Your task to perform on an android device: change the clock display to analog Image 0: 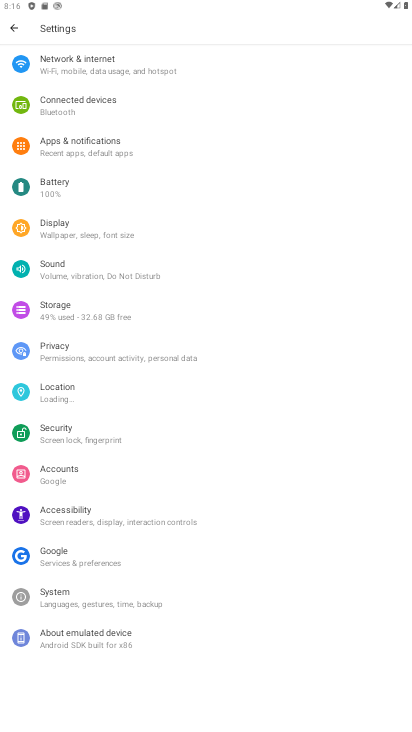
Step 0: press home button
Your task to perform on an android device: change the clock display to analog Image 1: 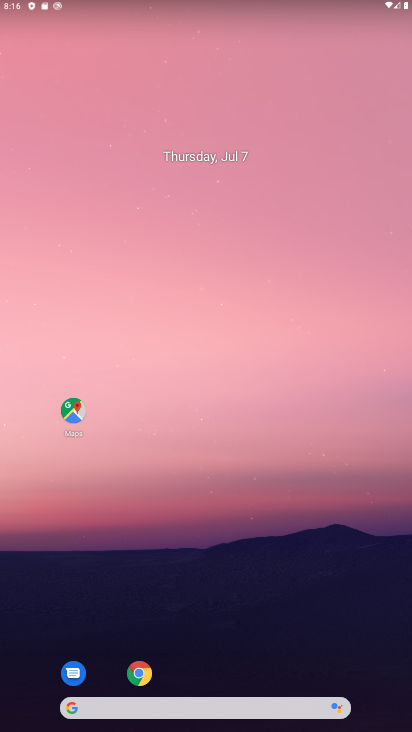
Step 1: drag from (194, 695) to (132, 30)
Your task to perform on an android device: change the clock display to analog Image 2: 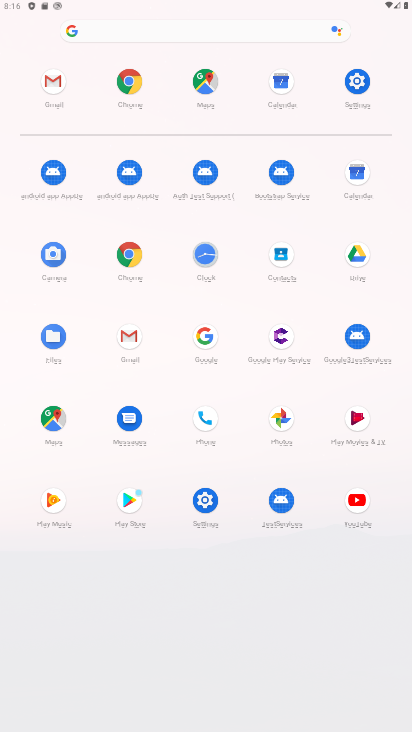
Step 2: click (197, 253)
Your task to perform on an android device: change the clock display to analog Image 3: 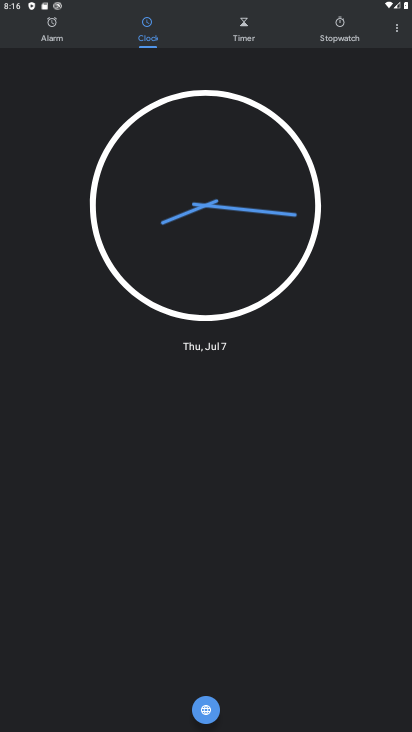
Step 3: click (393, 30)
Your task to perform on an android device: change the clock display to analog Image 4: 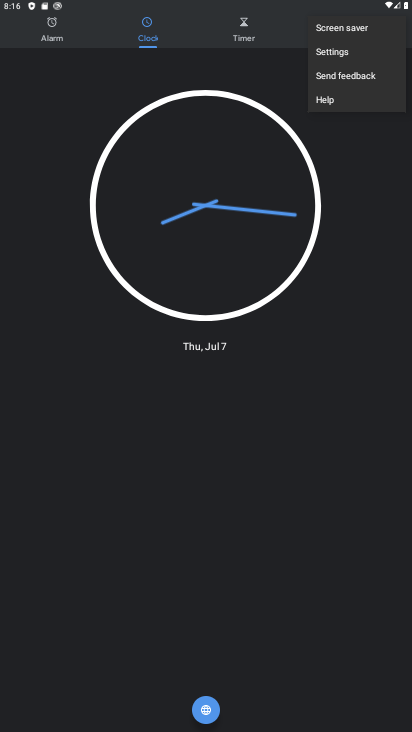
Step 4: click (334, 52)
Your task to perform on an android device: change the clock display to analog Image 5: 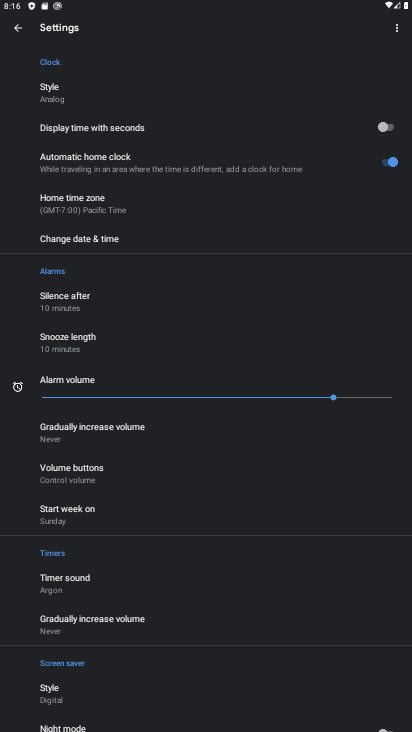
Step 5: click (60, 94)
Your task to perform on an android device: change the clock display to analog Image 6: 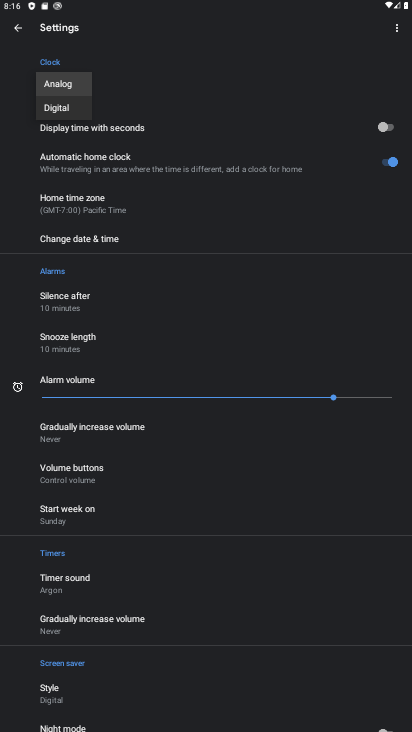
Step 6: click (56, 84)
Your task to perform on an android device: change the clock display to analog Image 7: 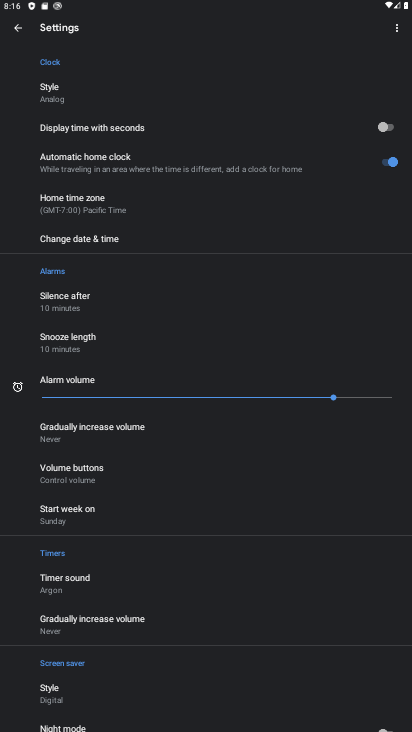
Step 7: task complete